Your task to perform on an android device: search for starred emails in the gmail app Image 0: 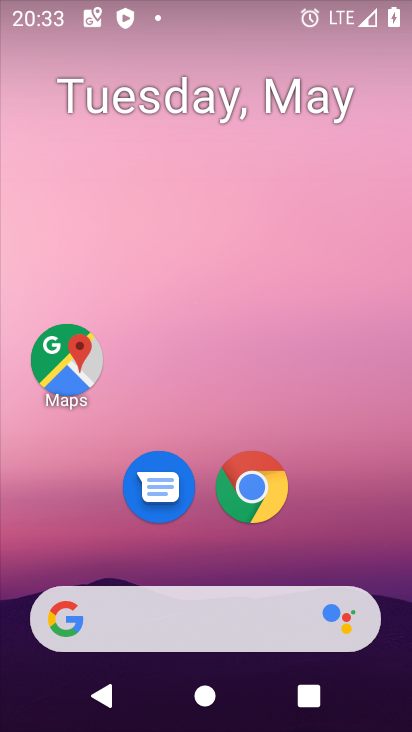
Step 0: drag from (353, 517) to (284, 31)
Your task to perform on an android device: search for starred emails in the gmail app Image 1: 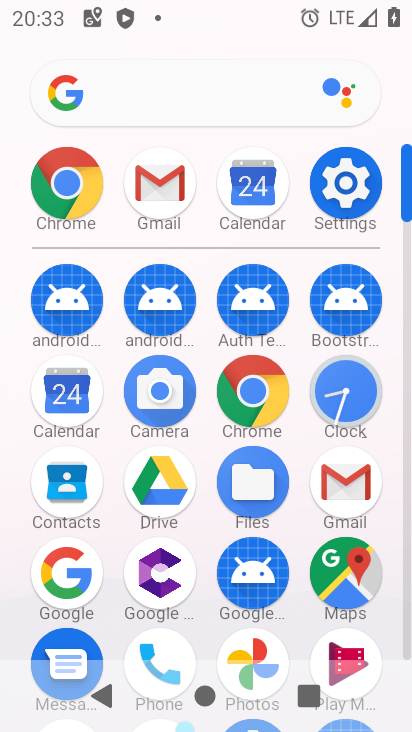
Step 1: click (152, 185)
Your task to perform on an android device: search for starred emails in the gmail app Image 2: 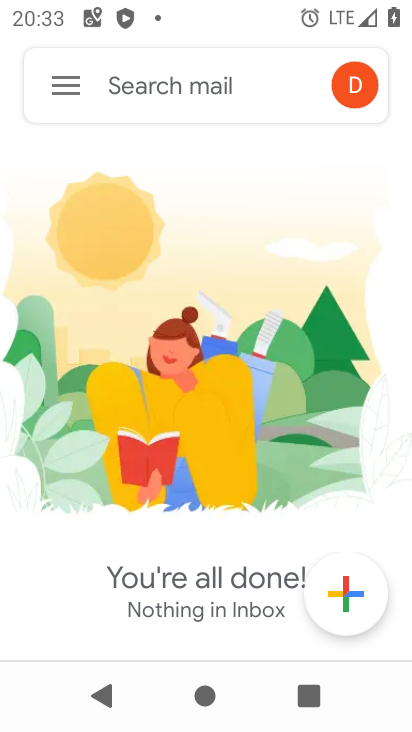
Step 2: click (59, 81)
Your task to perform on an android device: search for starred emails in the gmail app Image 3: 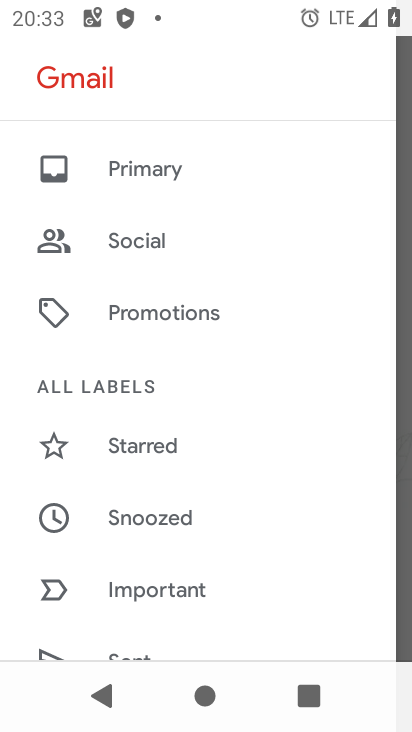
Step 3: click (153, 437)
Your task to perform on an android device: search for starred emails in the gmail app Image 4: 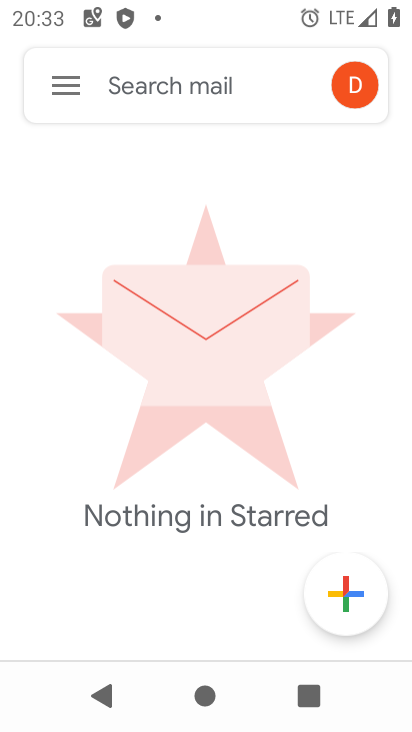
Step 4: task complete